Your task to perform on an android device: turn vacation reply on in the gmail app Image 0: 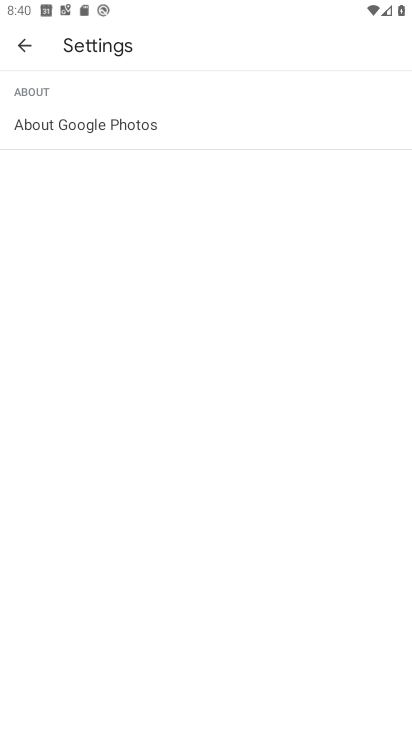
Step 0: press home button
Your task to perform on an android device: turn vacation reply on in the gmail app Image 1: 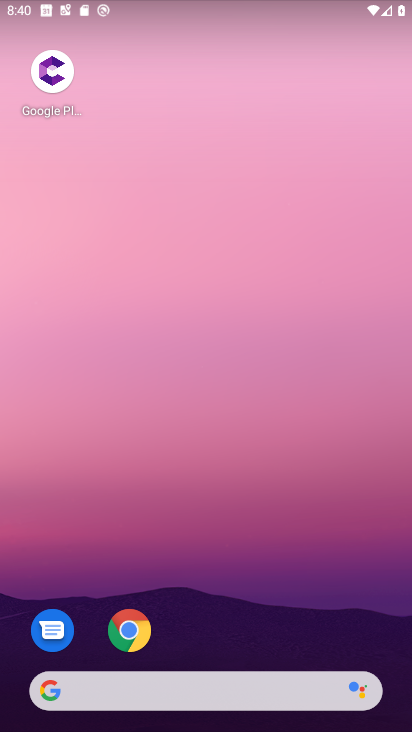
Step 1: drag from (201, 617) to (202, 143)
Your task to perform on an android device: turn vacation reply on in the gmail app Image 2: 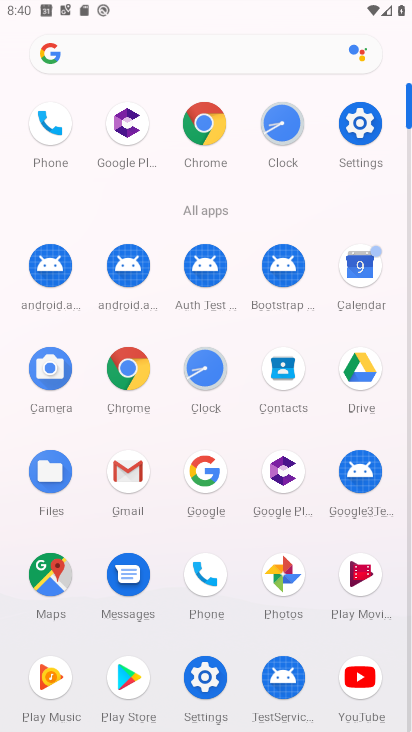
Step 2: click (115, 480)
Your task to perform on an android device: turn vacation reply on in the gmail app Image 3: 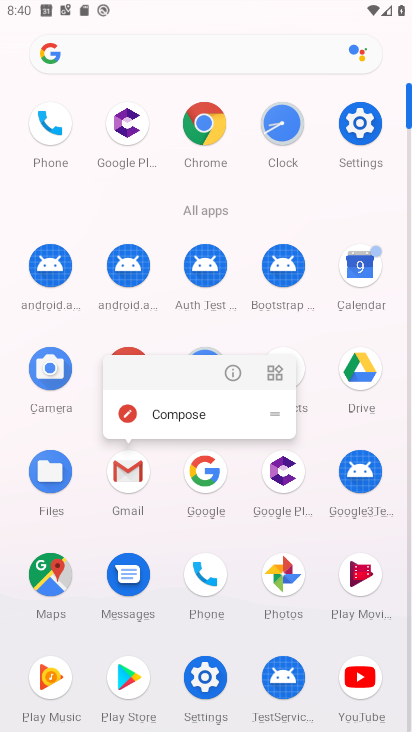
Step 3: click (134, 480)
Your task to perform on an android device: turn vacation reply on in the gmail app Image 4: 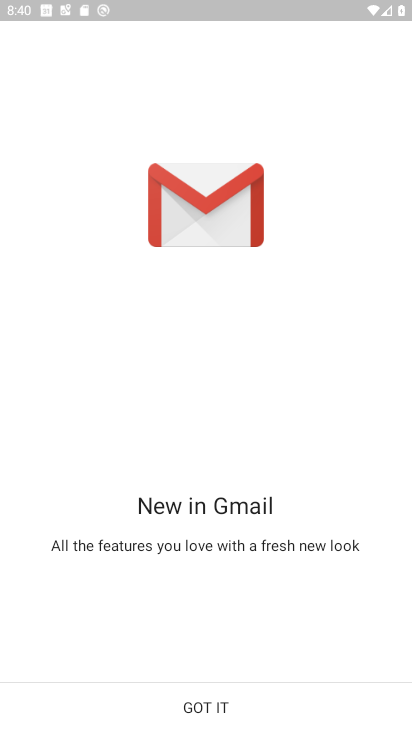
Step 4: click (210, 713)
Your task to perform on an android device: turn vacation reply on in the gmail app Image 5: 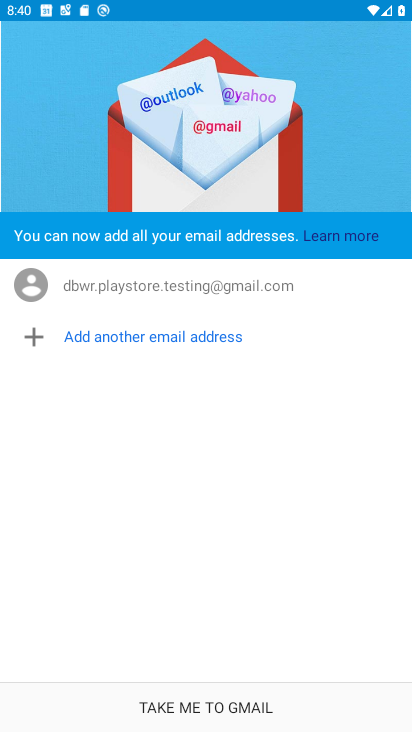
Step 5: click (210, 711)
Your task to perform on an android device: turn vacation reply on in the gmail app Image 6: 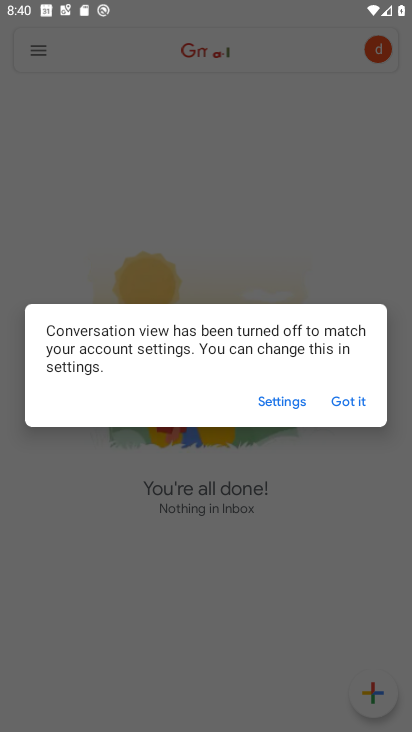
Step 6: click (348, 393)
Your task to perform on an android device: turn vacation reply on in the gmail app Image 7: 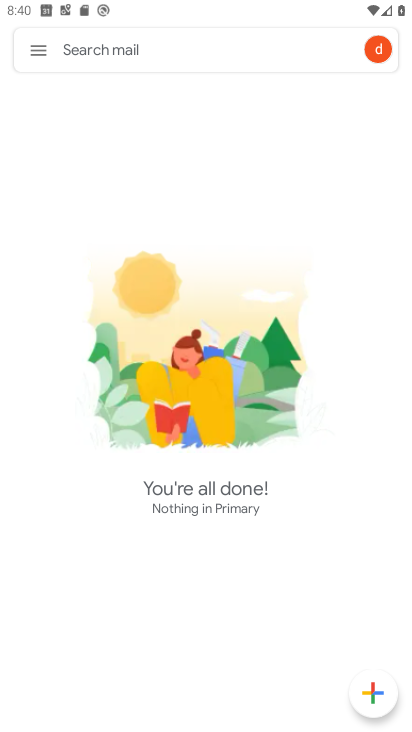
Step 7: click (36, 52)
Your task to perform on an android device: turn vacation reply on in the gmail app Image 8: 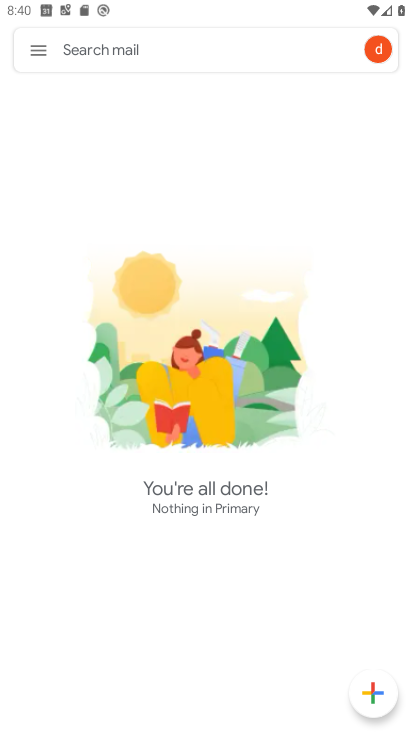
Step 8: click (35, 49)
Your task to perform on an android device: turn vacation reply on in the gmail app Image 9: 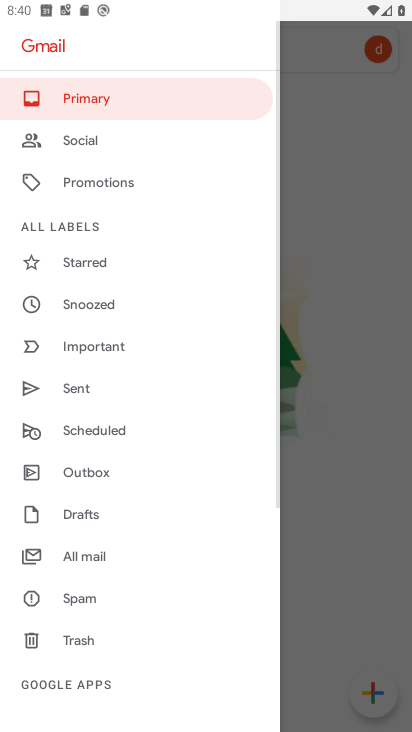
Step 9: drag from (97, 643) to (130, 183)
Your task to perform on an android device: turn vacation reply on in the gmail app Image 10: 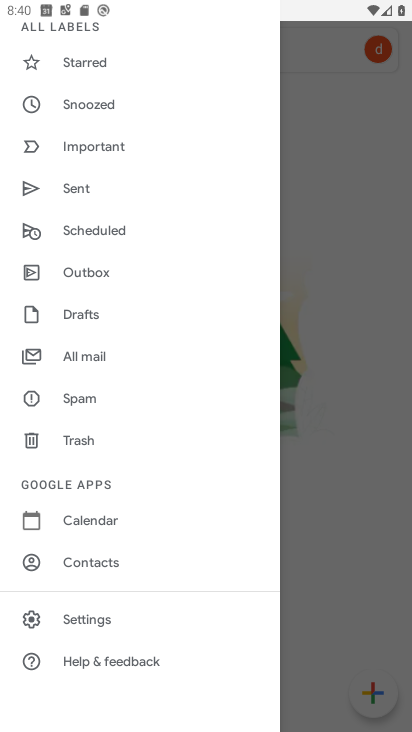
Step 10: click (93, 625)
Your task to perform on an android device: turn vacation reply on in the gmail app Image 11: 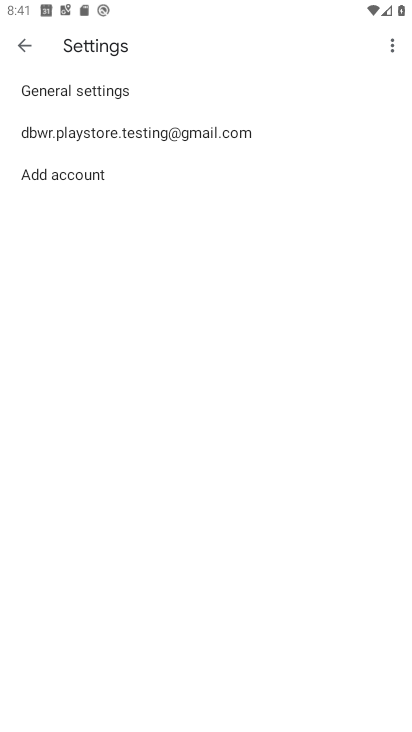
Step 11: click (91, 127)
Your task to perform on an android device: turn vacation reply on in the gmail app Image 12: 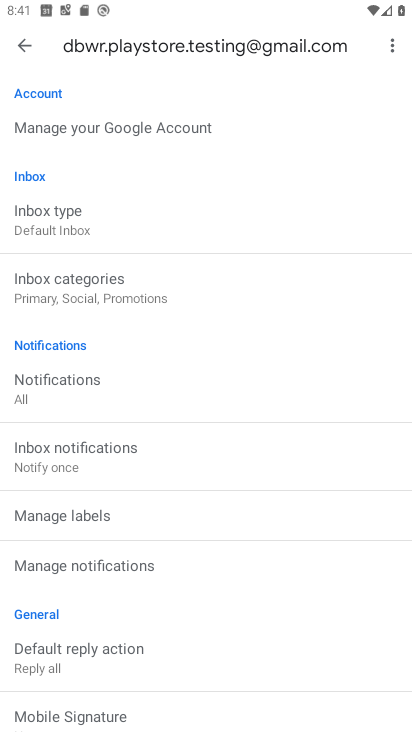
Step 12: drag from (135, 685) to (171, 368)
Your task to perform on an android device: turn vacation reply on in the gmail app Image 13: 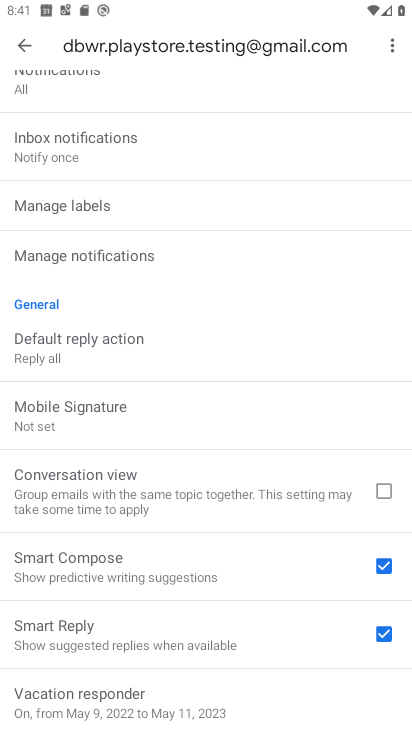
Step 13: click (102, 724)
Your task to perform on an android device: turn vacation reply on in the gmail app Image 14: 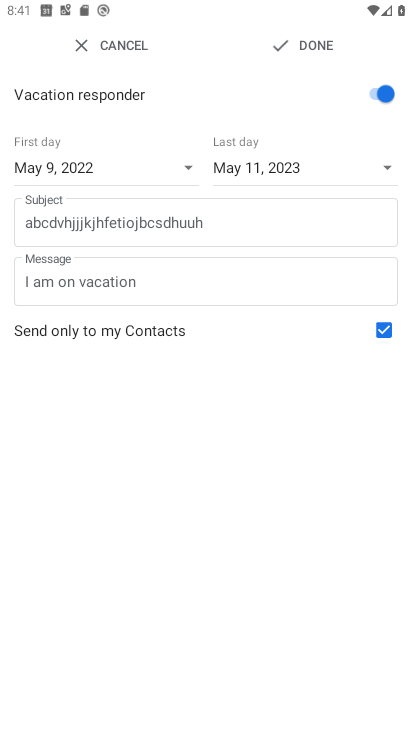
Step 14: click (334, 55)
Your task to perform on an android device: turn vacation reply on in the gmail app Image 15: 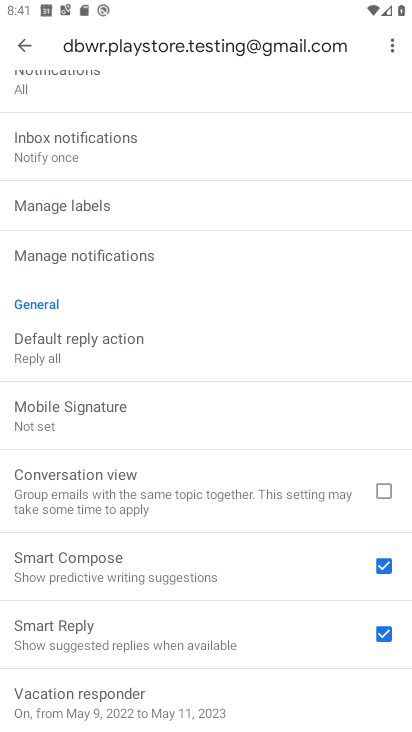
Step 15: task complete